Your task to perform on an android device: star an email in the gmail app Image 0: 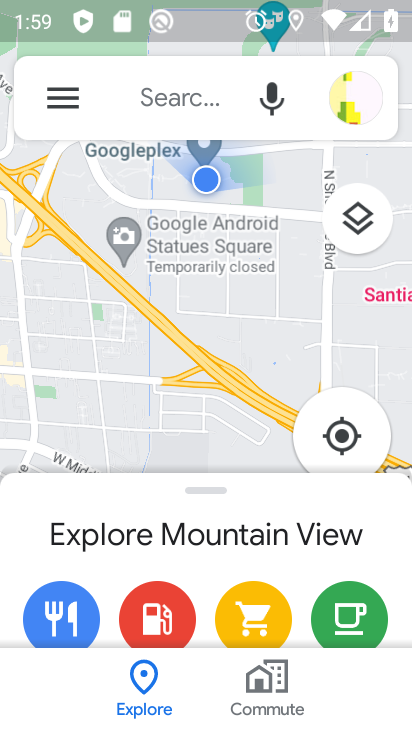
Step 0: press home button
Your task to perform on an android device: star an email in the gmail app Image 1: 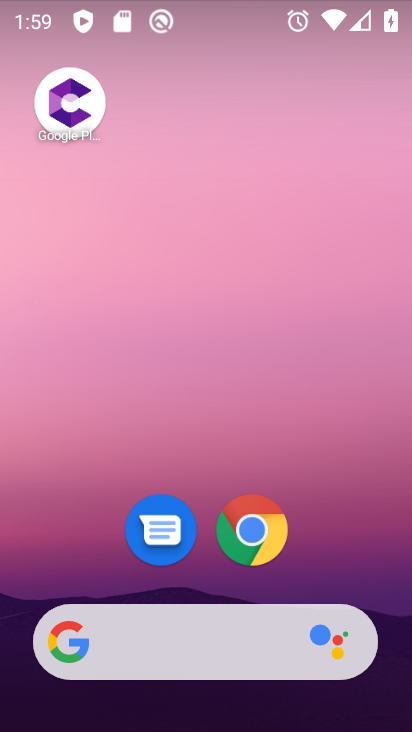
Step 1: drag from (344, 564) to (409, 95)
Your task to perform on an android device: star an email in the gmail app Image 2: 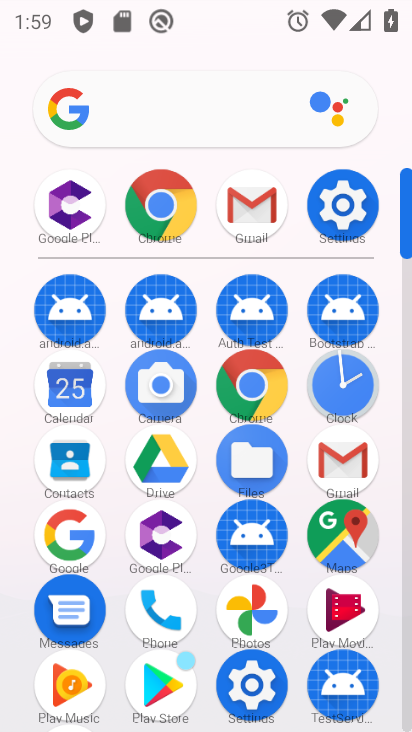
Step 2: click (331, 467)
Your task to perform on an android device: star an email in the gmail app Image 3: 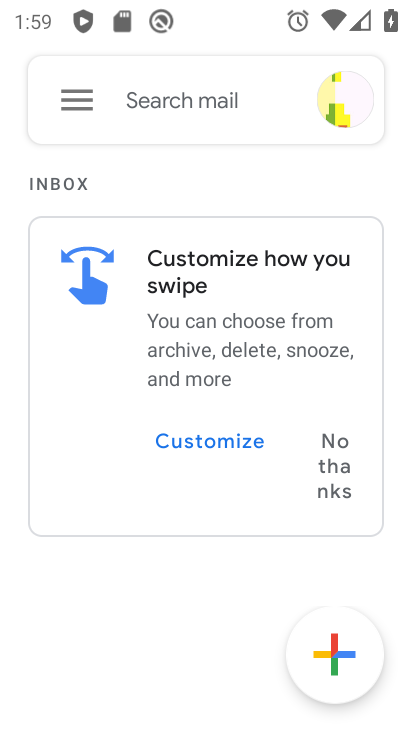
Step 3: click (88, 109)
Your task to perform on an android device: star an email in the gmail app Image 4: 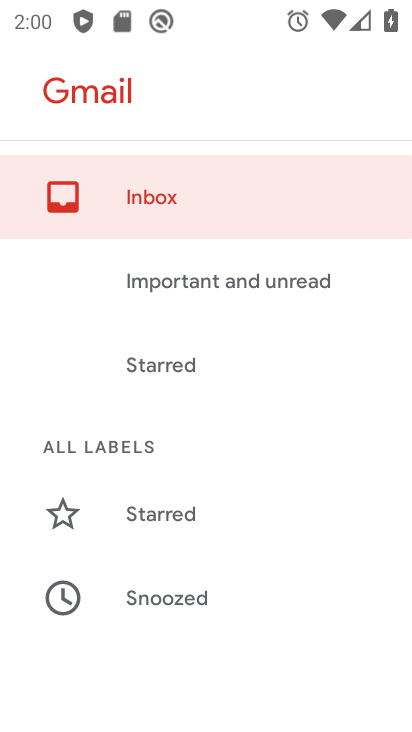
Step 4: drag from (261, 621) to (273, 221)
Your task to perform on an android device: star an email in the gmail app Image 5: 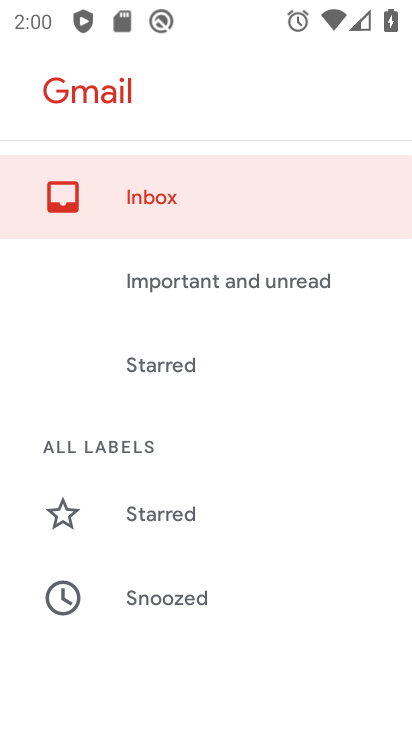
Step 5: drag from (224, 611) to (276, 177)
Your task to perform on an android device: star an email in the gmail app Image 6: 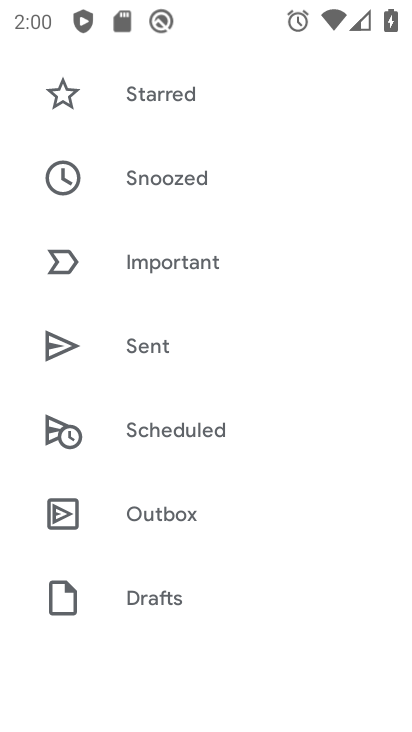
Step 6: drag from (230, 600) to (271, 270)
Your task to perform on an android device: star an email in the gmail app Image 7: 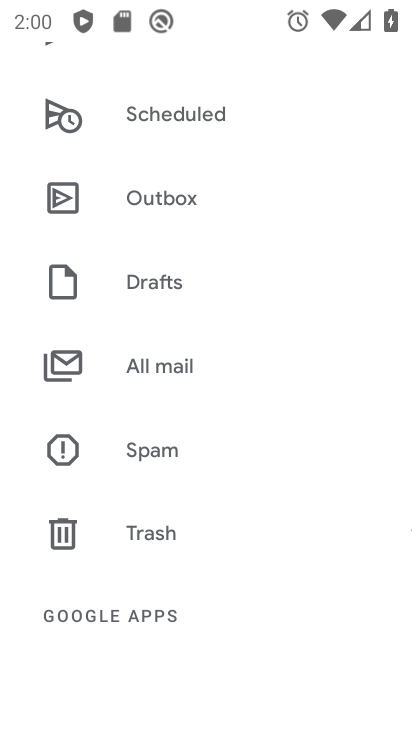
Step 7: click (182, 365)
Your task to perform on an android device: star an email in the gmail app Image 8: 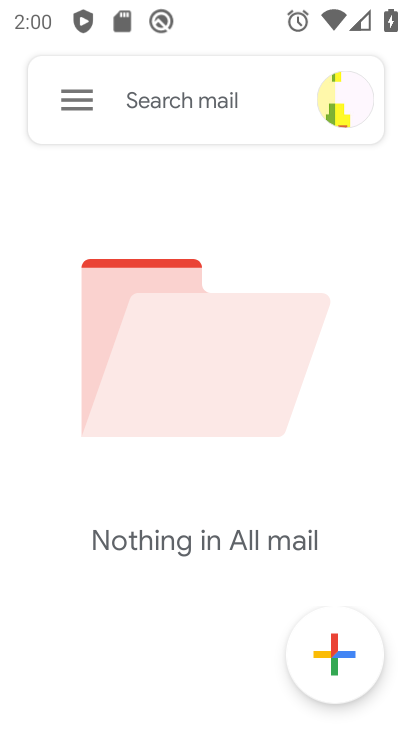
Step 8: click (83, 110)
Your task to perform on an android device: star an email in the gmail app Image 9: 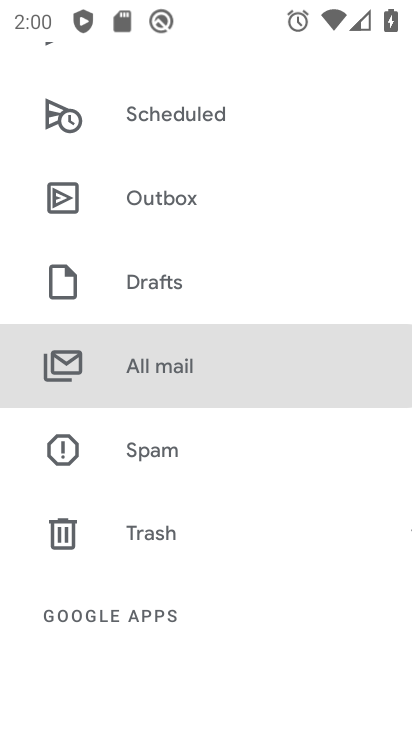
Step 9: drag from (196, 558) to (249, 141)
Your task to perform on an android device: star an email in the gmail app Image 10: 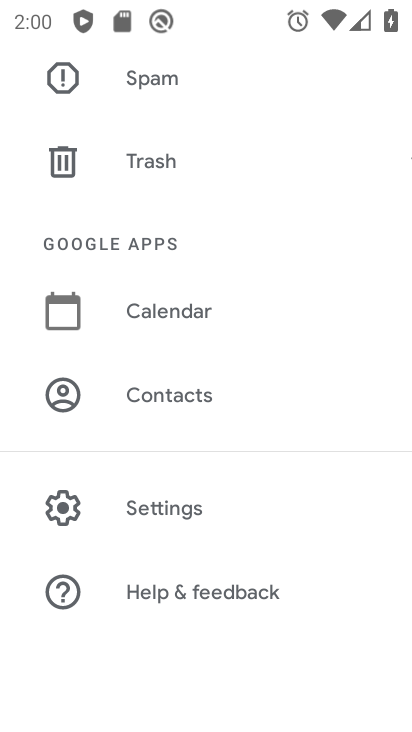
Step 10: click (205, 512)
Your task to perform on an android device: star an email in the gmail app Image 11: 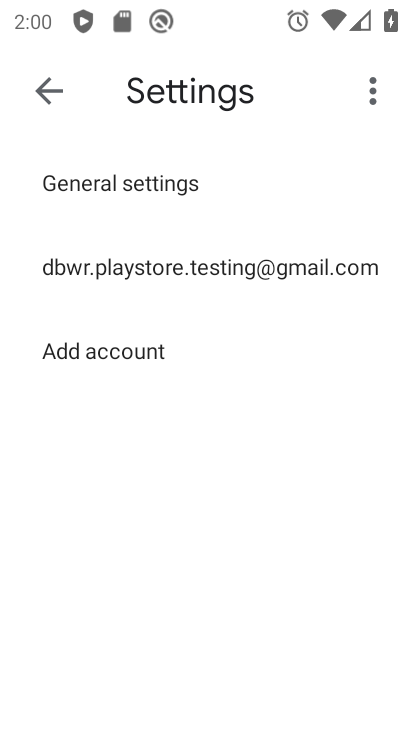
Step 11: click (46, 95)
Your task to perform on an android device: star an email in the gmail app Image 12: 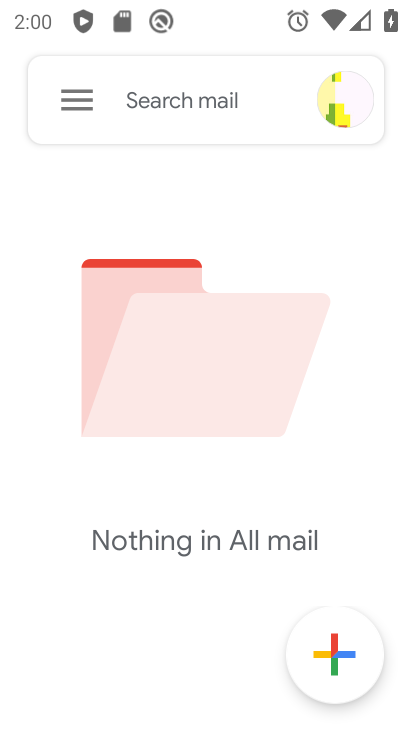
Step 12: click (83, 97)
Your task to perform on an android device: star an email in the gmail app Image 13: 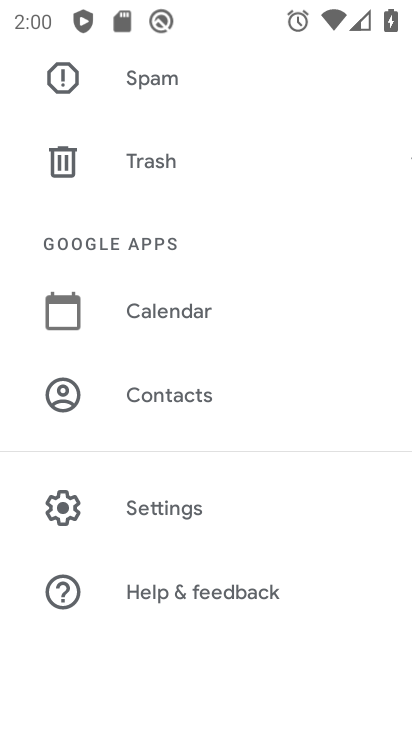
Step 13: drag from (189, 113) to (215, 427)
Your task to perform on an android device: star an email in the gmail app Image 14: 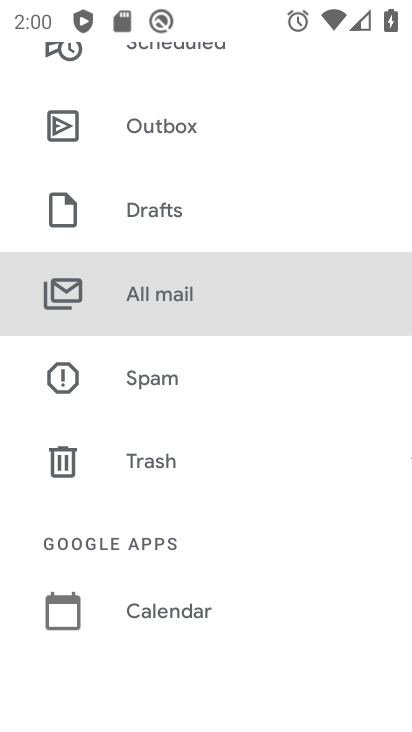
Step 14: click (165, 290)
Your task to perform on an android device: star an email in the gmail app Image 15: 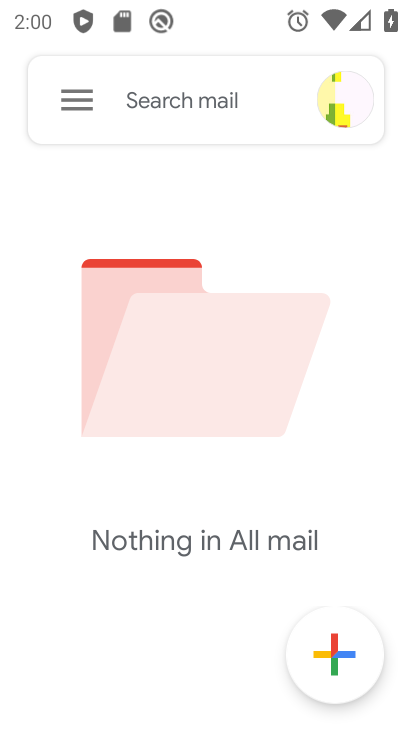
Step 15: task complete